Your task to perform on an android device: Is it going to rain this weekend? Image 0: 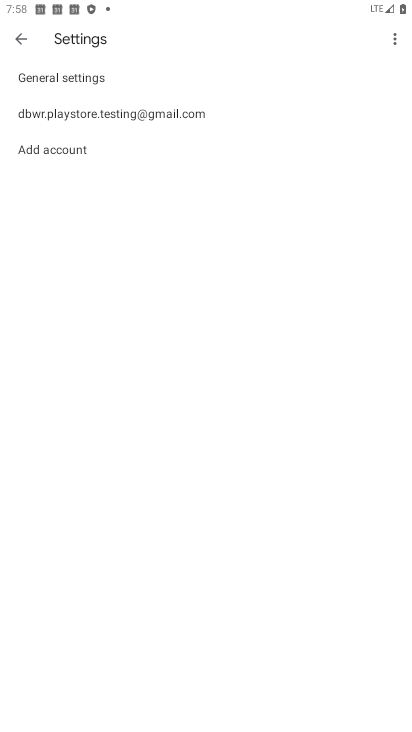
Step 0: press home button
Your task to perform on an android device: Is it going to rain this weekend? Image 1: 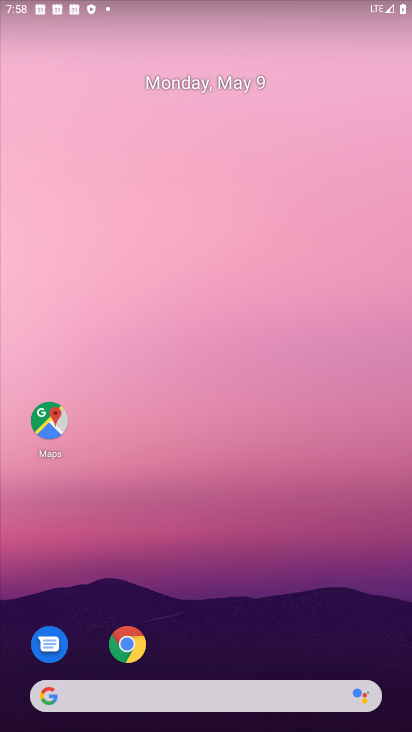
Step 1: click (129, 643)
Your task to perform on an android device: Is it going to rain this weekend? Image 2: 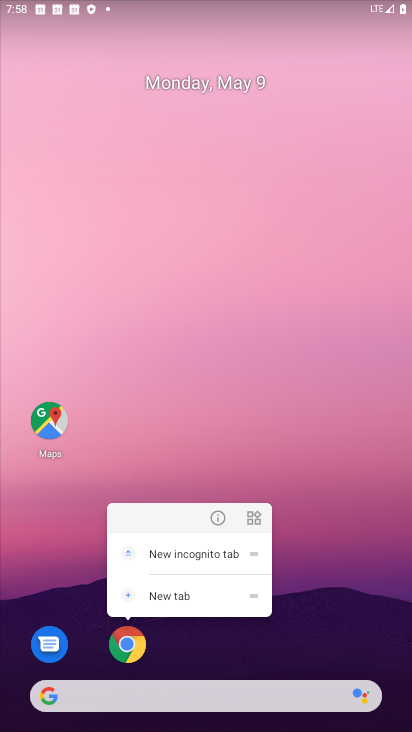
Step 2: click (208, 521)
Your task to perform on an android device: Is it going to rain this weekend? Image 3: 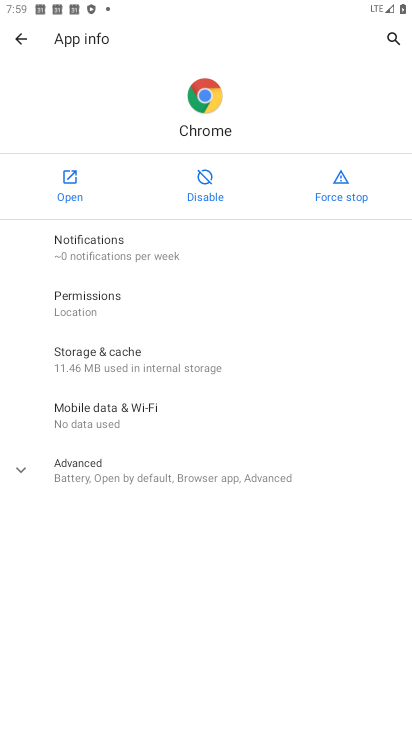
Step 3: click (68, 193)
Your task to perform on an android device: Is it going to rain this weekend? Image 4: 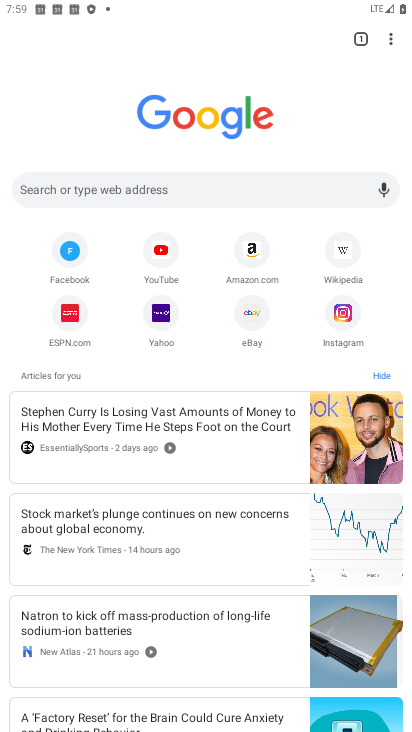
Step 4: click (64, 194)
Your task to perform on an android device: Is it going to rain this weekend? Image 5: 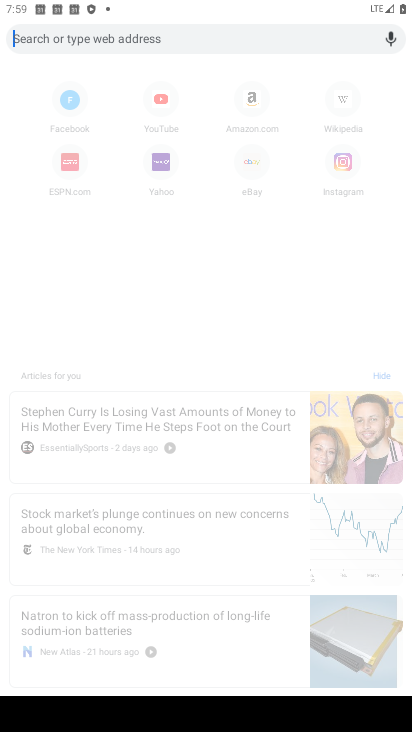
Step 5: type "Is it going to rain this weekend?"
Your task to perform on an android device: Is it going to rain this weekend? Image 6: 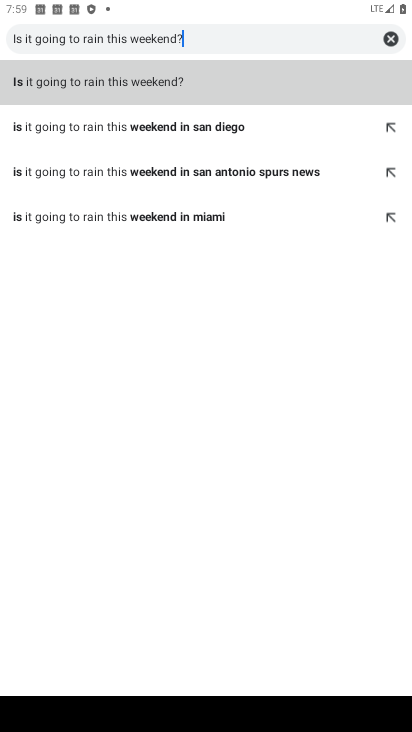
Step 6: click (122, 93)
Your task to perform on an android device: Is it going to rain this weekend? Image 7: 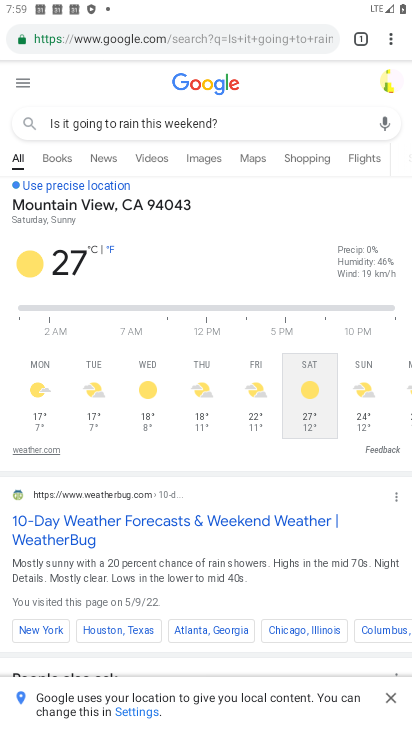
Step 7: task complete